Your task to perform on an android device: When is my next meeting? Image 0: 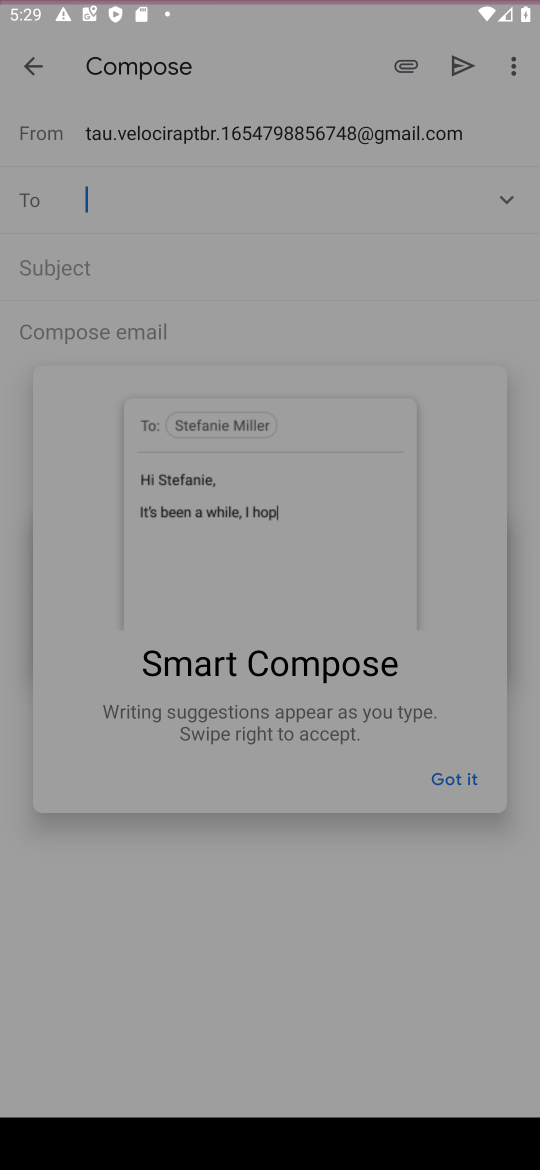
Step 0: press home button
Your task to perform on an android device: When is my next meeting? Image 1: 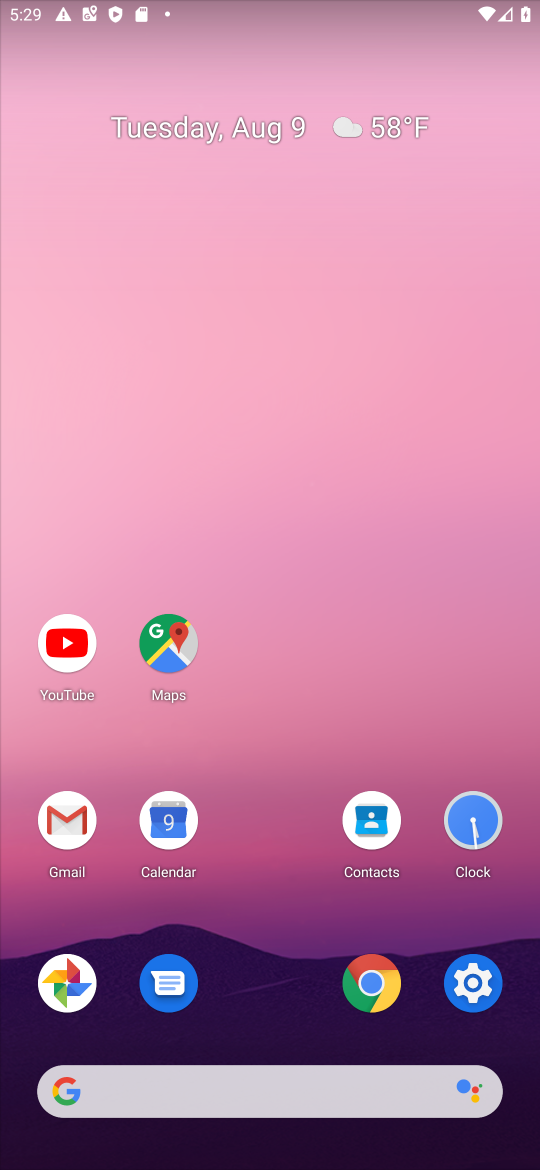
Step 1: click (169, 814)
Your task to perform on an android device: When is my next meeting? Image 2: 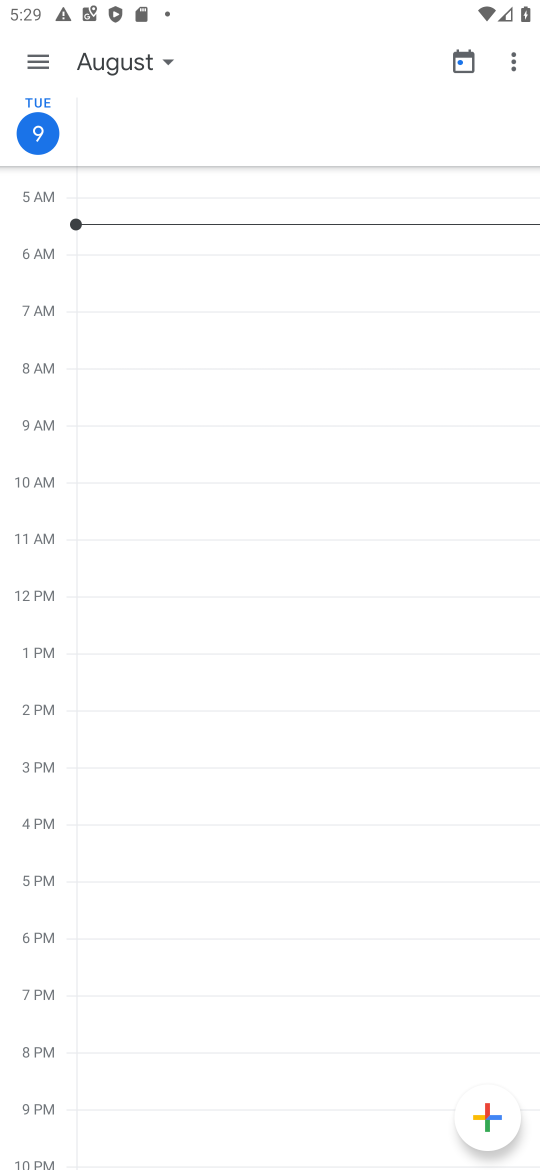
Step 2: task complete